Your task to perform on an android device: change the clock style Image 0: 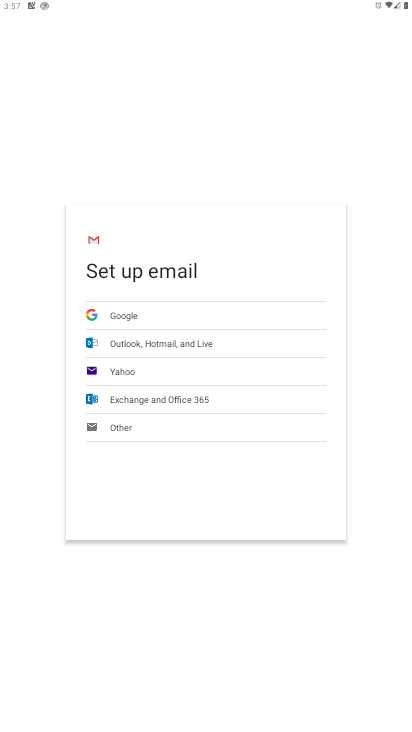
Step 0: press home button
Your task to perform on an android device: change the clock style Image 1: 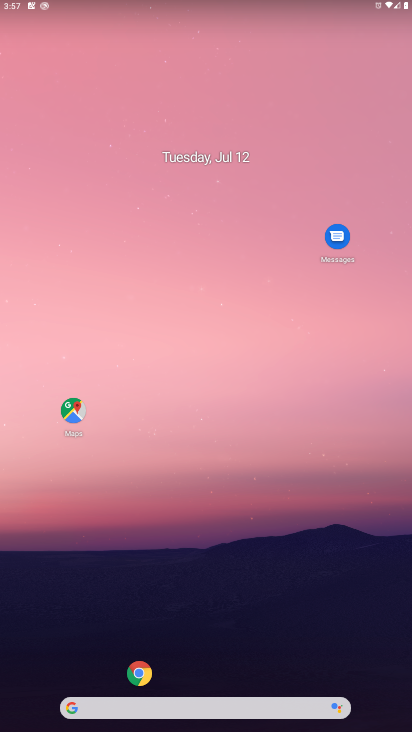
Step 1: drag from (17, 688) to (334, 49)
Your task to perform on an android device: change the clock style Image 2: 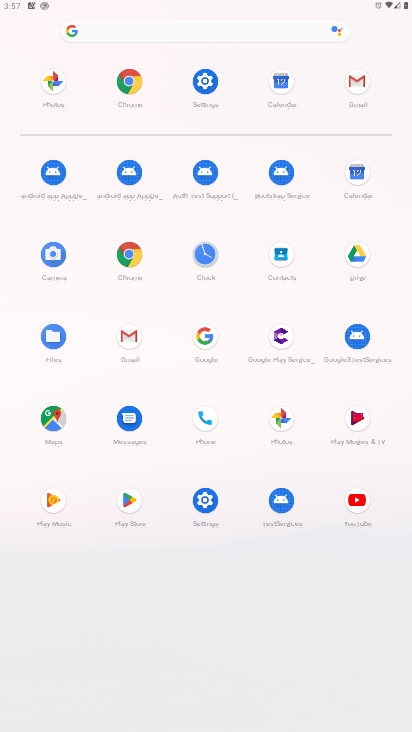
Step 2: click (210, 252)
Your task to perform on an android device: change the clock style Image 3: 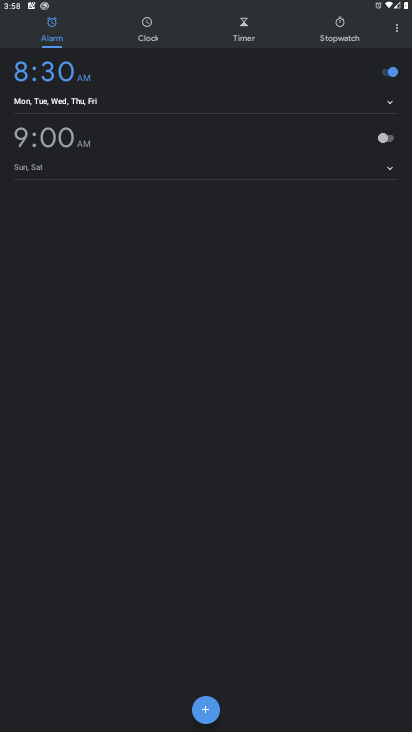
Step 3: click (148, 19)
Your task to perform on an android device: change the clock style Image 4: 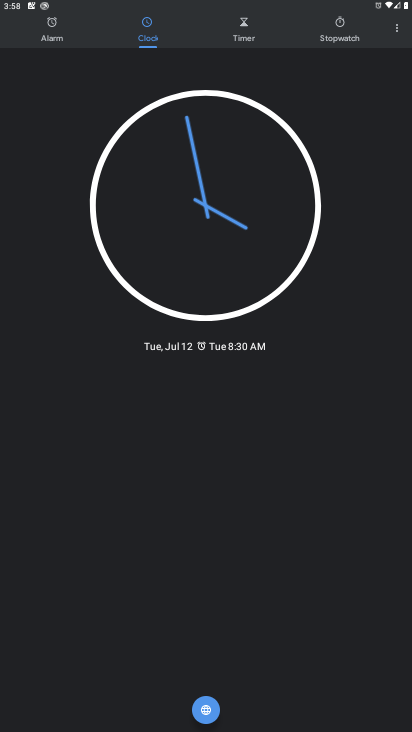
Step 4: click (398, 24)
Your task to perform on an android device: change the clock style Image 5: 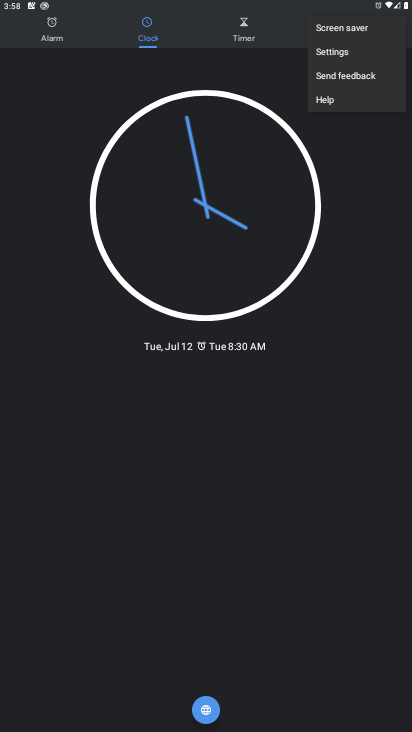
Step 5: click (334, 53)
Your task to perform on an android device: change the clock style Image 6: 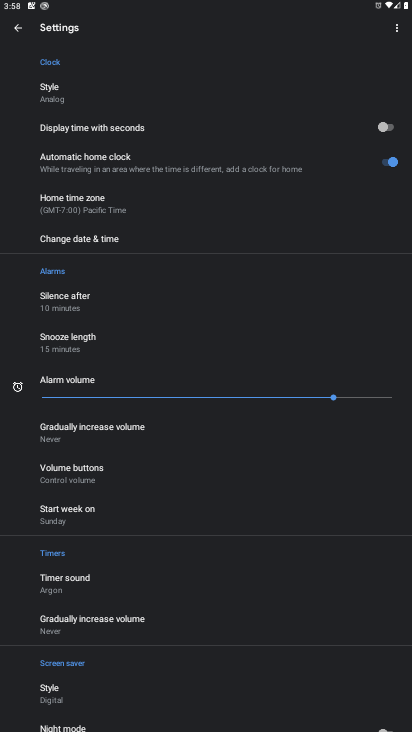
Step 6: click (80, 87)
Your task to perform on an android device: change the clock style Image 7: 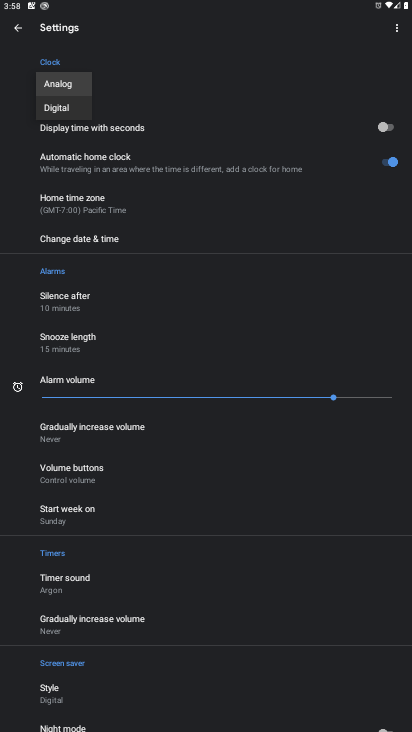
Step 7: click (76, 107)
Your task to perform on an android device: change the clock style Image 8: 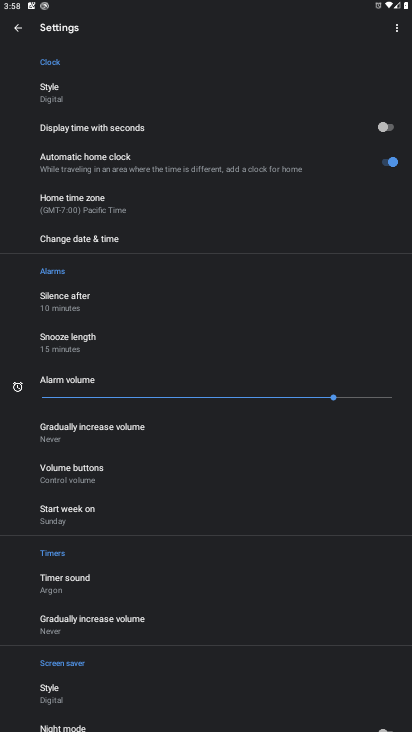
Step 8: task complete